Your task to perform on an android device: allow notifications from all sites in the chrome app Image 0: 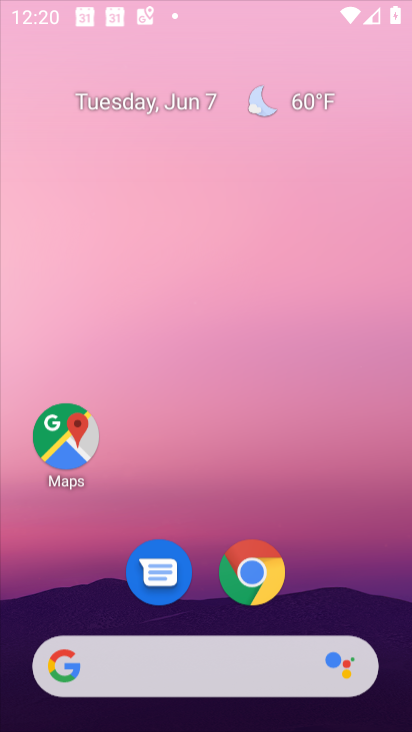
Step 0: press home button
Your task to perform on an android device: allow notifications from all sites in the chrome app Image 1: 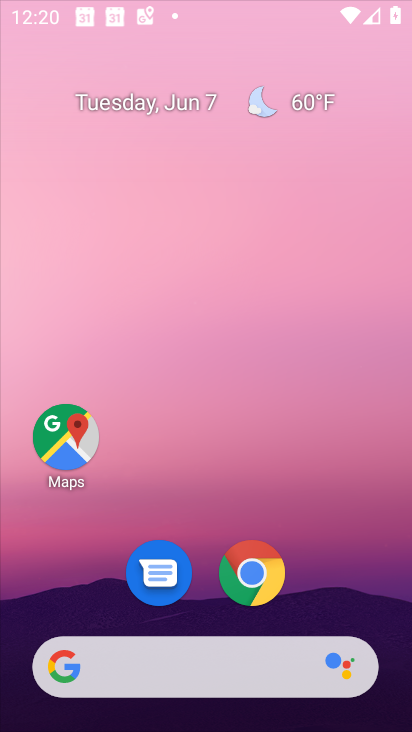
Step 1: drag from (328, 529) to (384, 96)
Your task to perform on an android device: allow notifications from all sites in the chrome app Image 2: 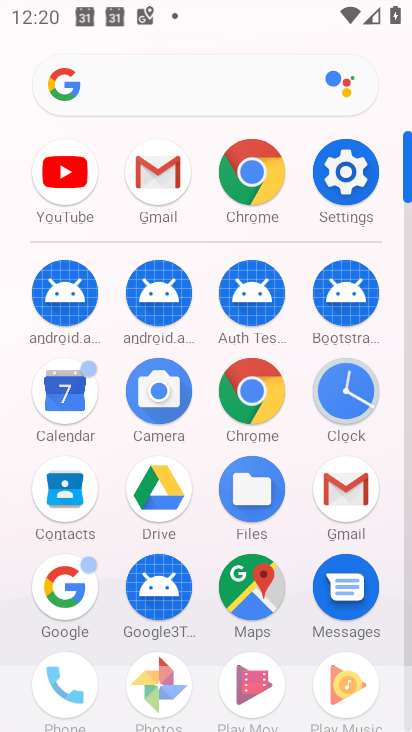
Step 2: click (261, 205)
Your task to perform on an android device: allow notifications from all sites in the chrome app Image 3: 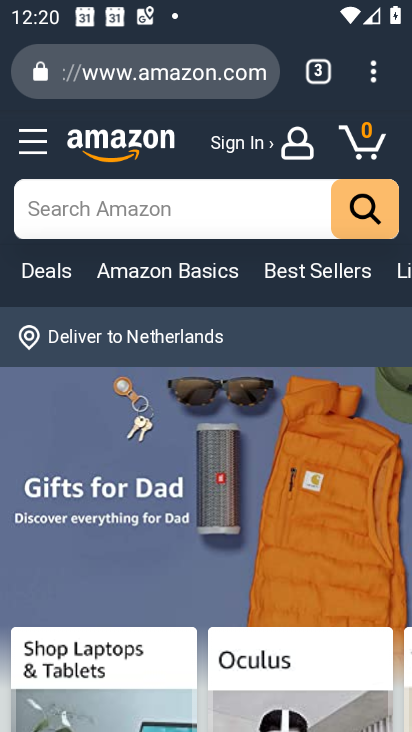
Step 3: drag from (370, 63) to (139, 572)
Your task to perform on an android device: allow notifications from all sites in the chrome app Image 4: 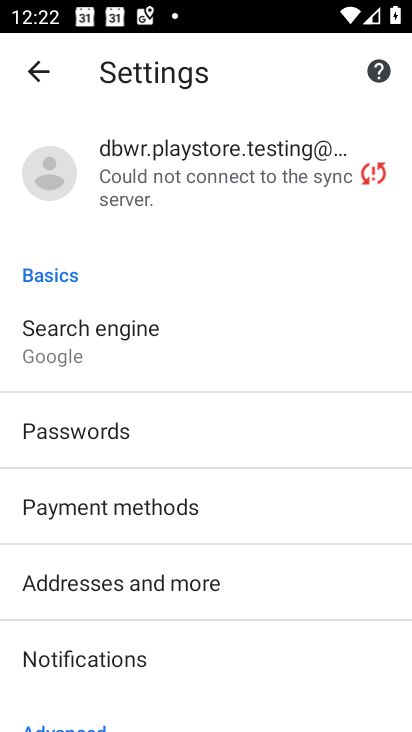
Step 4: drag from (248, 596) to (198, 229)
Your task to perform on an android device: allow notifications from all sites in the chrome app Image 5: 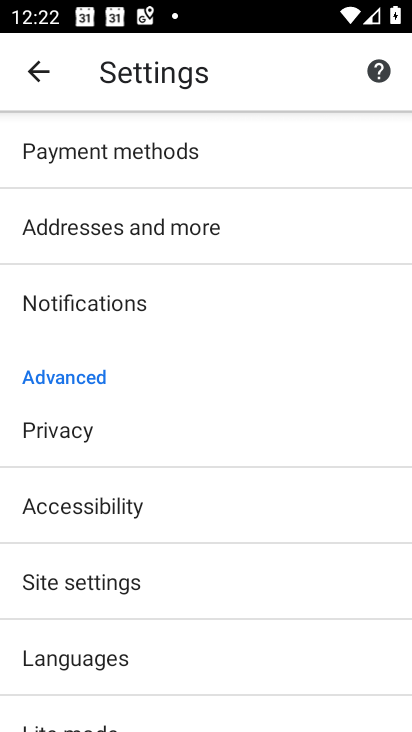
Step 5: click (142, 592)
Your task to perform on an android device: allow notifications from all sites in the chrome app Image 6: 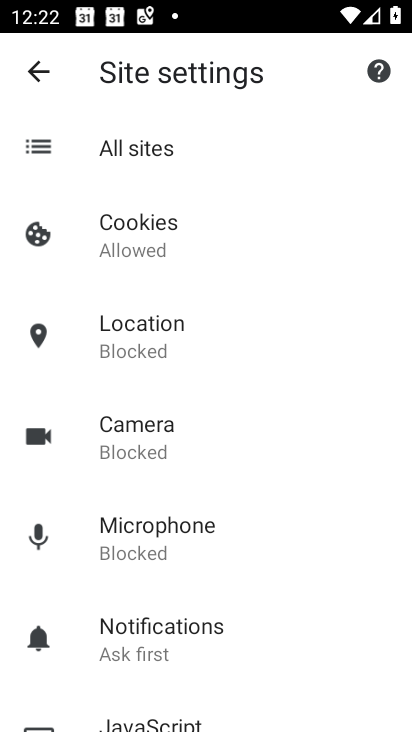
Step 6: click (215, 137)
Your task to perform on an android device: allow notifications from all sites in the chrome app Image 7: 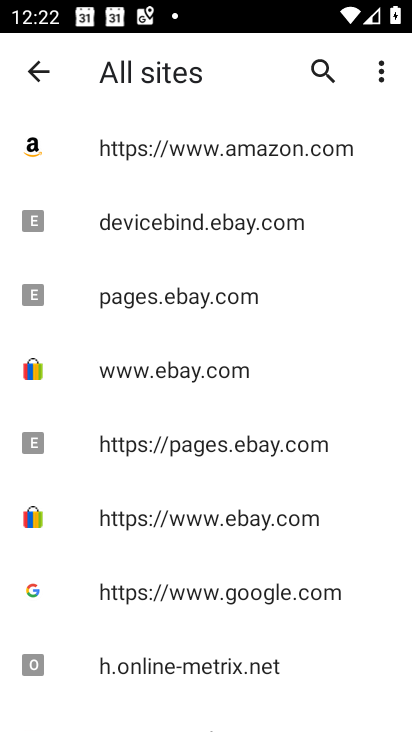
Step 7: click (140, 612)
Your task to perform on an android device: allow notifications from all sites in the chrome app Image 8: 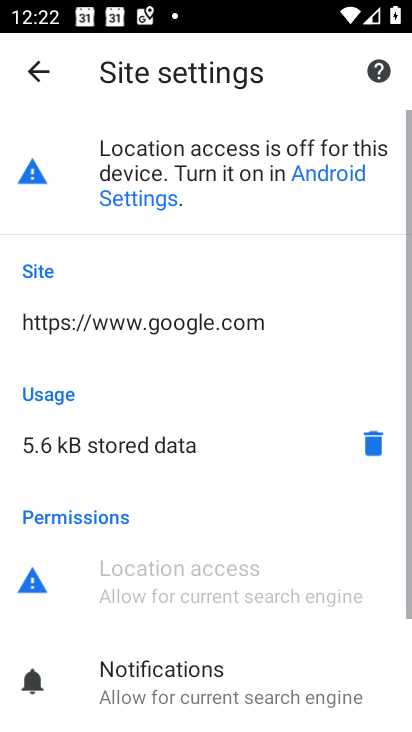
Step 8: click (162, 663)
Your task to perform on an android device: allow notifications from all sites in the chrome app Image 9: 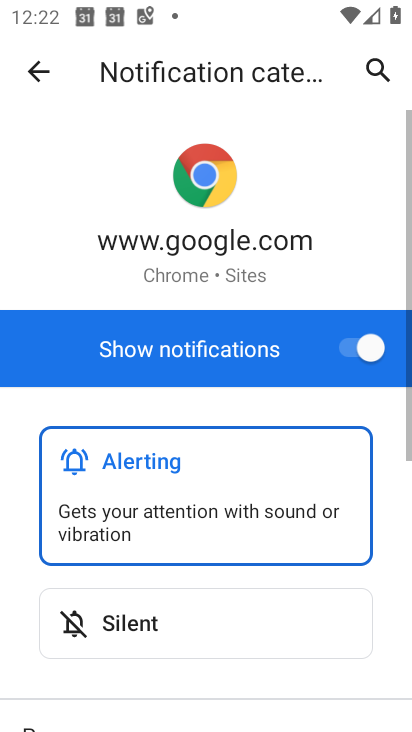
Step 9: drag from (187, 633) to (41, 120)
Your task to perform on an android device: allow notifications from all sites in the chrome app Image 10: 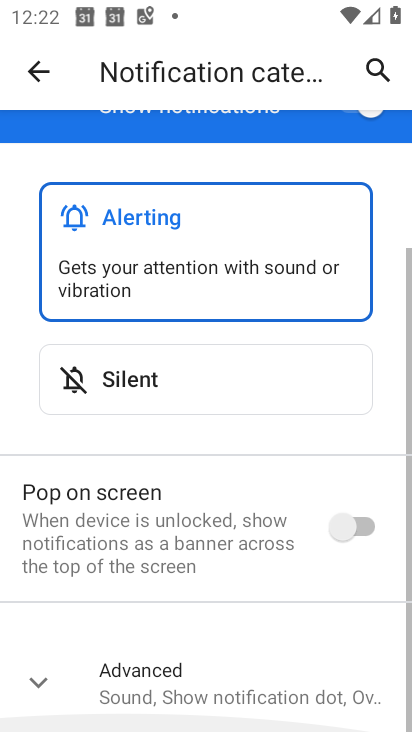
Step 10: drag from (283, 546) to (220, 344)
Your task to perform on an android device: allow notifications from all sites in the chrome app Image 11: 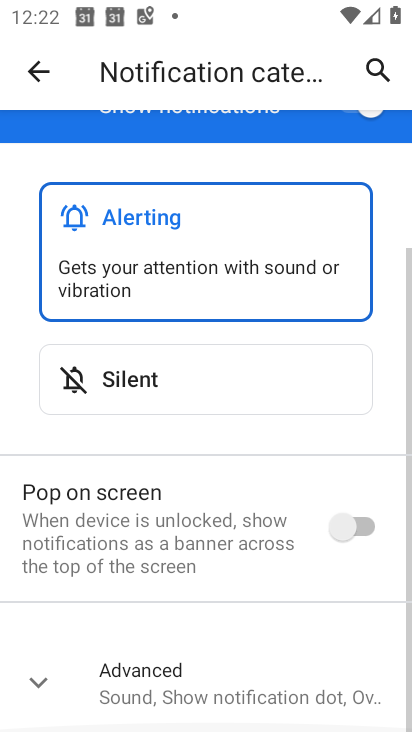
Step 11: click (263, 512)
Your task to perform on an android device: allow notifications from all sites in the chrome app Image 12: 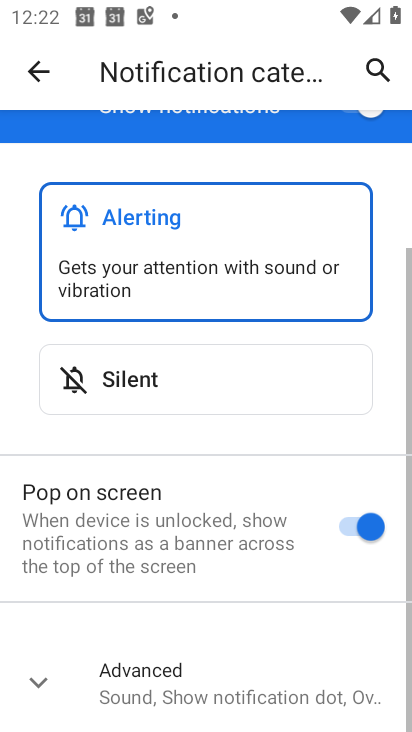
Step 12: click (276, 660)
Your task to perform on an android device: allow notifications from all sites in the chrome app Image 13: 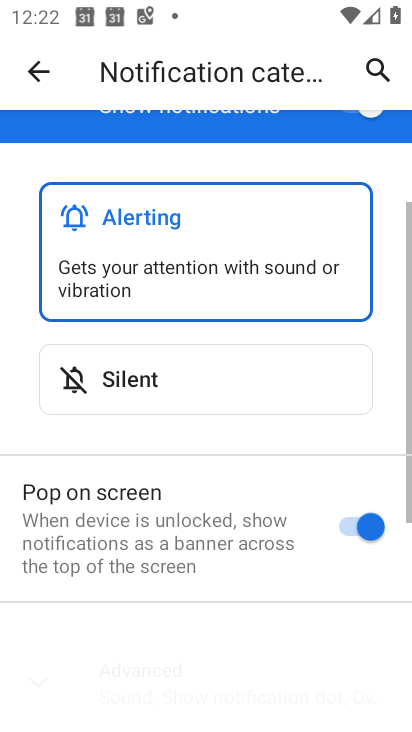
Step 13: drag from (276, 658) to (256, 251)
Your task to perform on an android device: allow notifications from all sites in the chrome app Image 14: 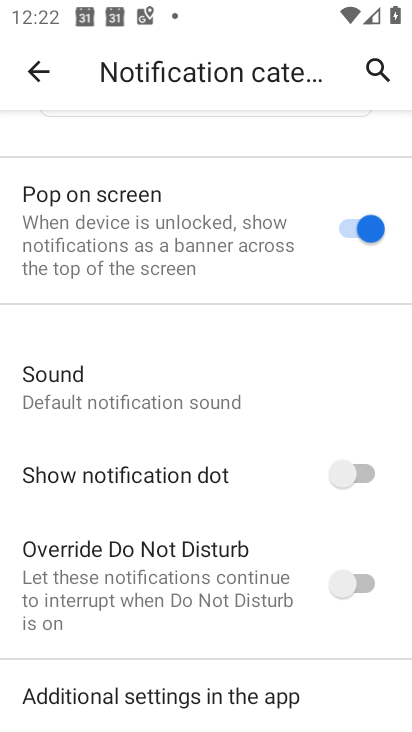
Step 14: click (365, 592)
Your task to perform on an android device: allow notifications from all sites in the chrome app Image 15: 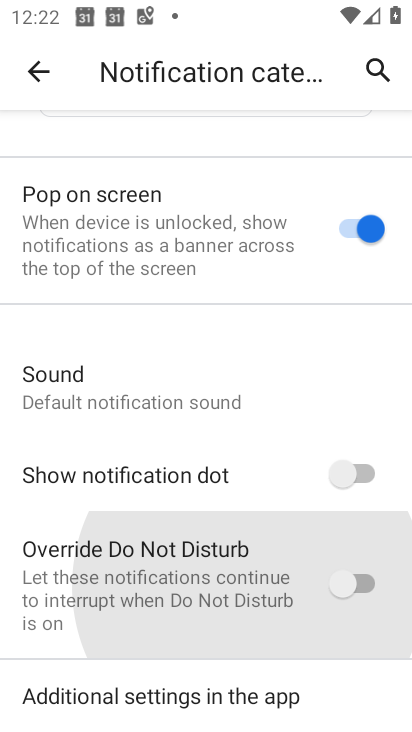
Step 15: click (310, 449)
Your task to perform on an android device: allow notifications from all sites in the chrome app Image 16: 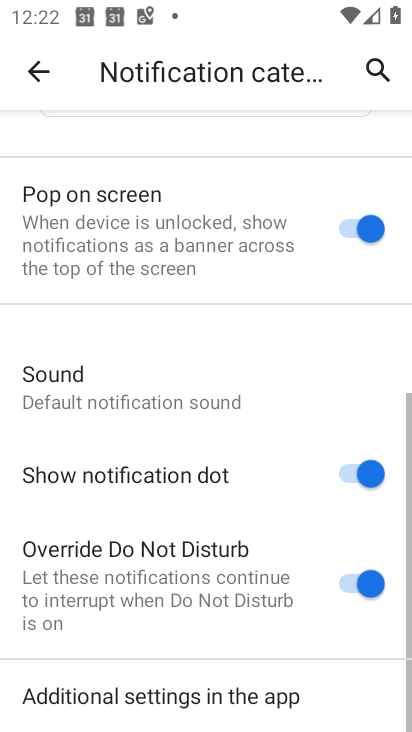
Step 16: task complete